Your task to perform on an android device: Open ESPN.com Image 0: 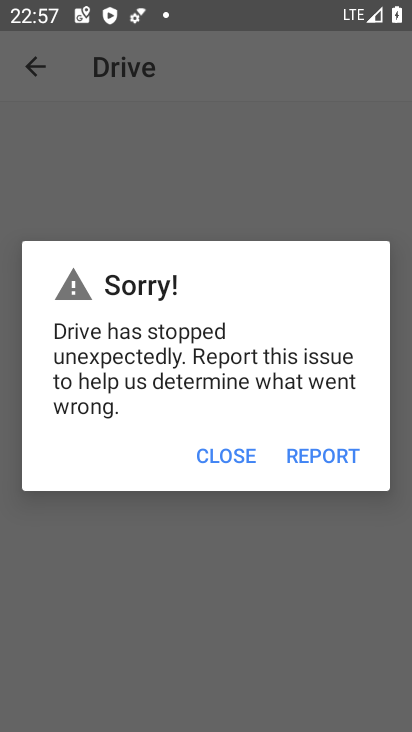
Step 0: press home button
Your task to perform on an android device: Open ESPN.com Image 1: 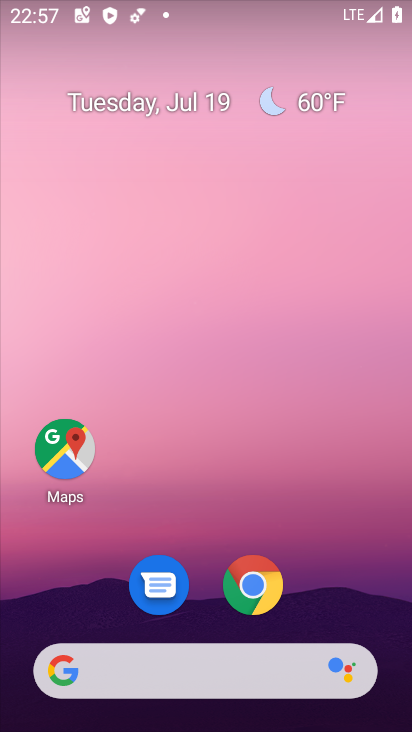
Step 1: click (251, 675)
Your task to perform on an android device: Open ESPN.com Image 2: 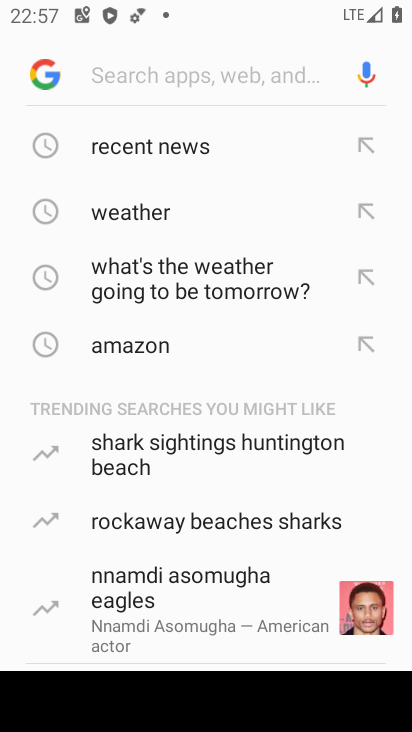
Step 2: type "espn.com"
Your task to perform on an android device: Open ESPN.com Image 3: 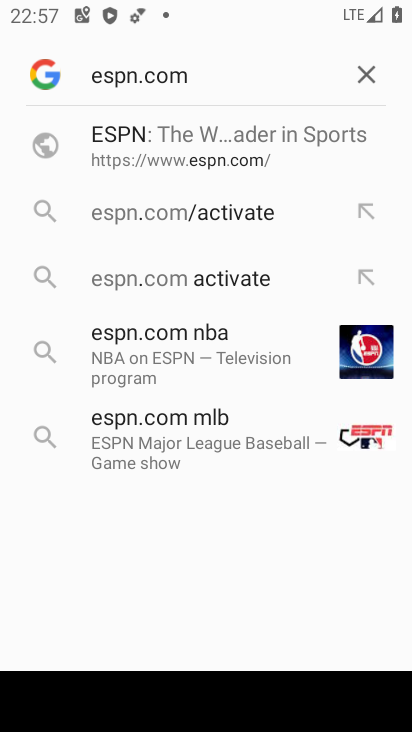
Step 3: click (216, 154)
Your task to perform on an android device: Open ESPN.com Image 4: 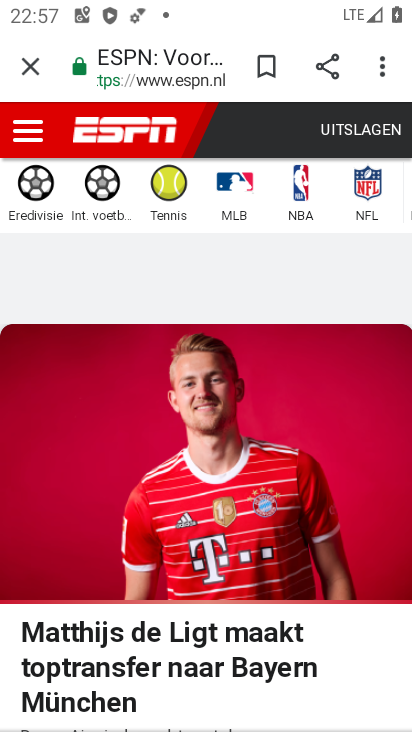
Step 4: task complete